Your task to perform on an android device: toggle data saver in the chrome app Image 0: 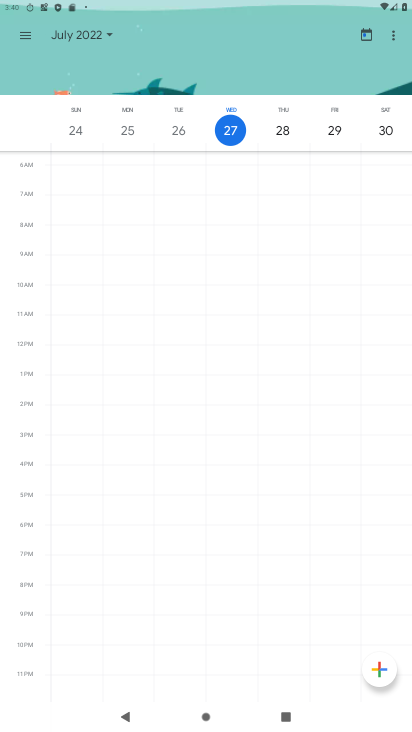
Step 0: press home button
Your task to perform on an android device: toggle data saver in the chrome app Image 1: 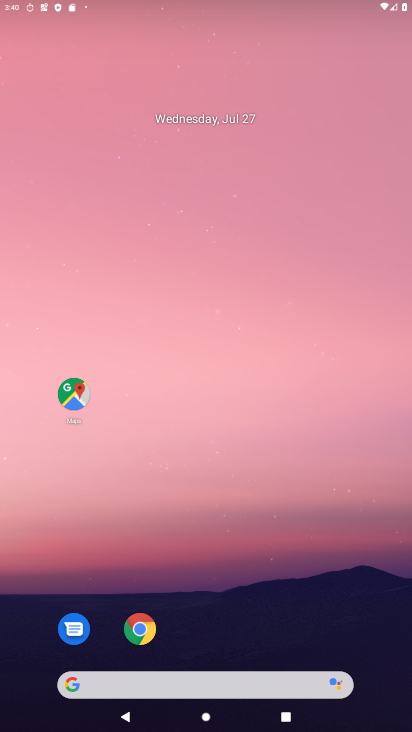
Step 1: drag from (282, 610) to (279, 104)
Your task to perform on an android device: toggle data saver in the chrome app Image 2: 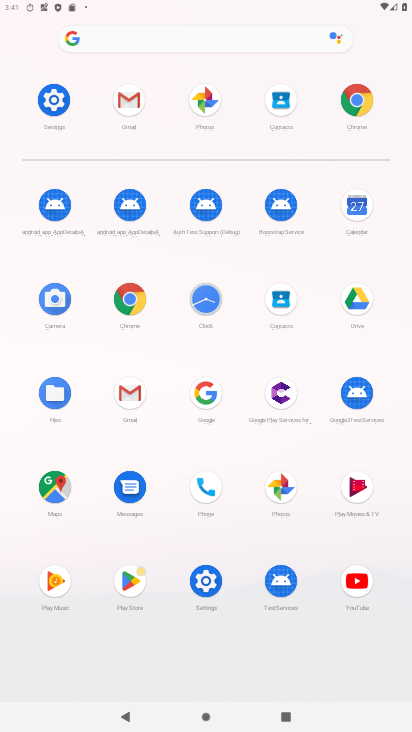
Step 2: click (361, 100)
Your task to perform on an android device: toggle data saver in the chrome app Image 3: 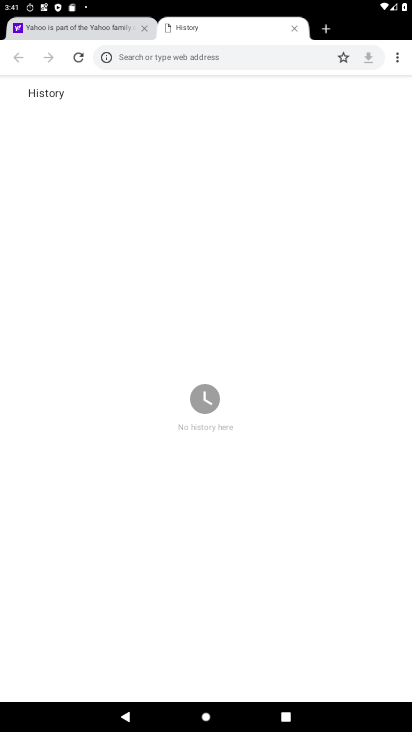
Step 3: drag from (398, 55) to (295, 266)
Your task to perform on an android device: toggle data saver in the chrome app Image 4: 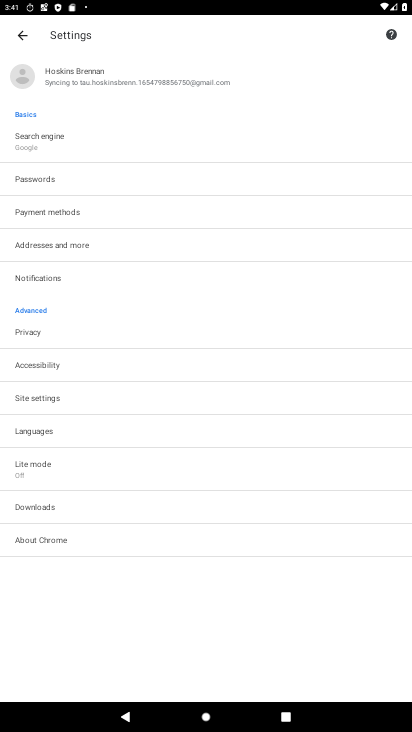
Step 4: click (54, 466)
Your task to perform on an android device: toggle data saver in the chrome app Image 5: 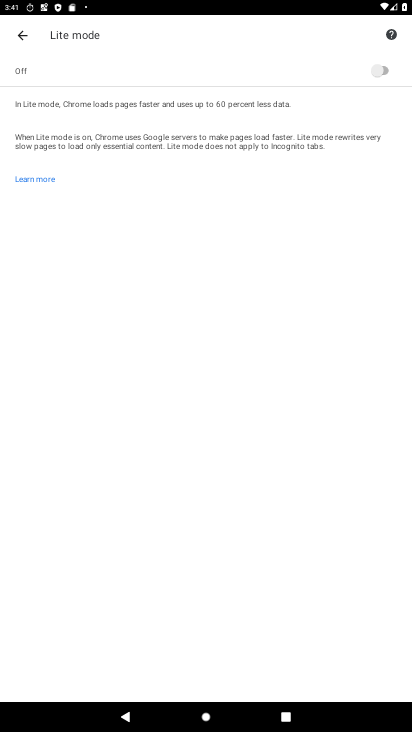
Step 5: click (389, 72)
Your task to perform on an android device: toggle data saver in the chrome app Image 6: 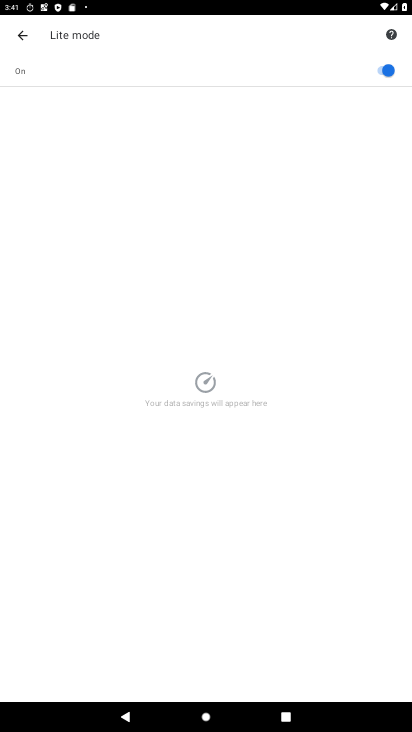
Step 6: task complete